Your task to perform on an android device: Open Yahoo.com Image 0: 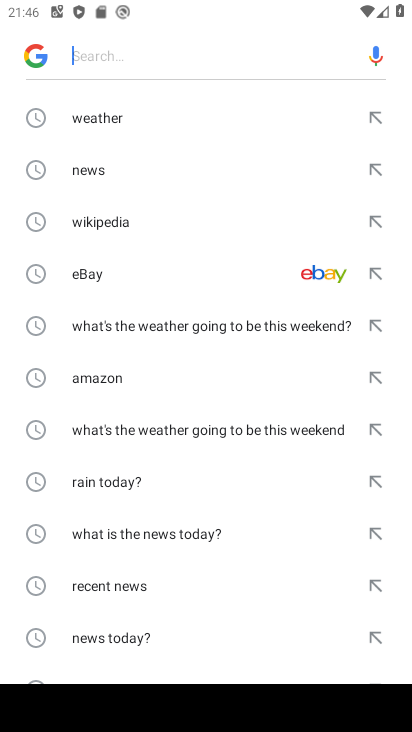
Step 0: press home button
Your task to perform on an android device: Open Yahoo.com Image 1: 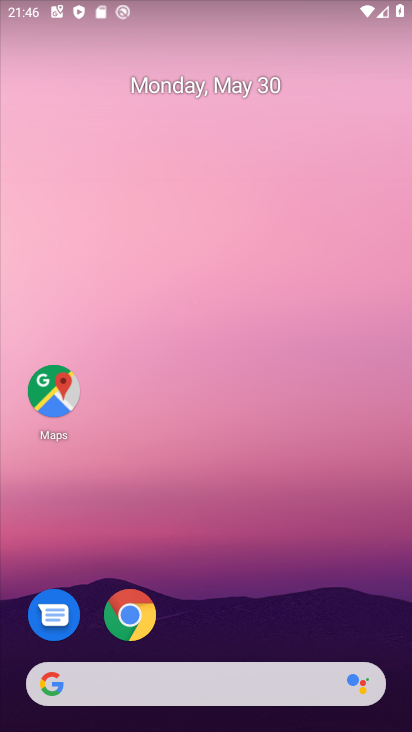
Step 1: click (138, 600)
Your task to perform on an android device: Open Yahoo.com Image 2: 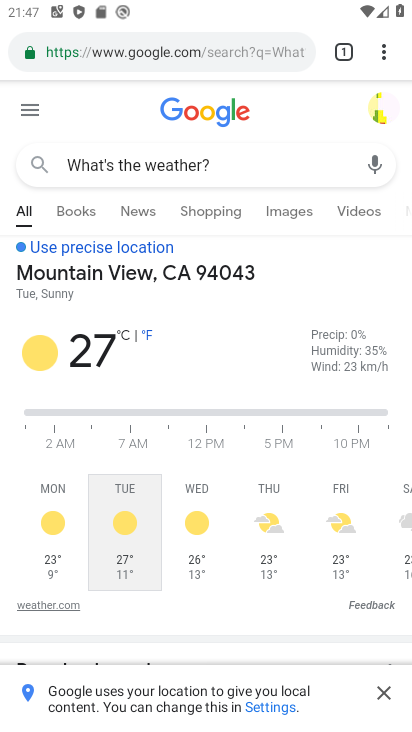
Step 2: click (202, 56)
Your task to perform on an android device: Open Yahoo.com Image 3: 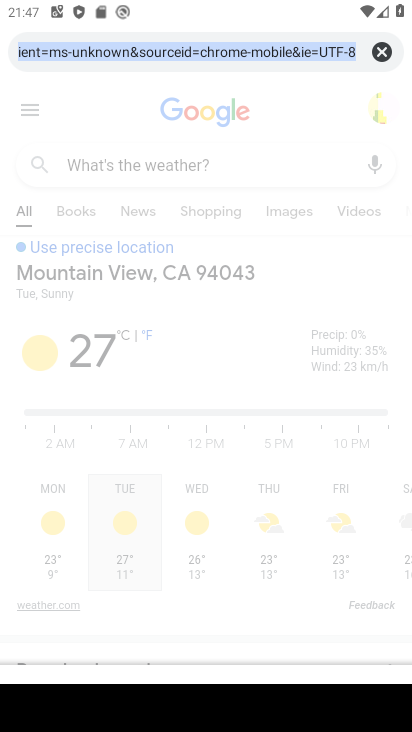
Step 3: type "yahoo.com"
Your task to perform on an android device: Open Yahoo.com Image 4: 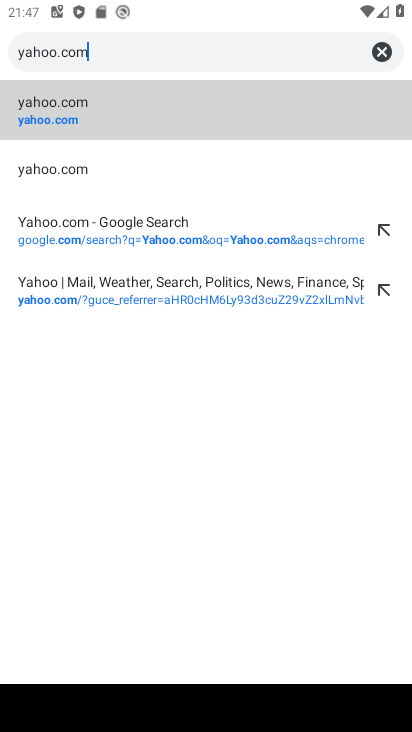
Step 4: click (69, 119)
Your task to perform on an android device: Open Yahoo.com Image 5: 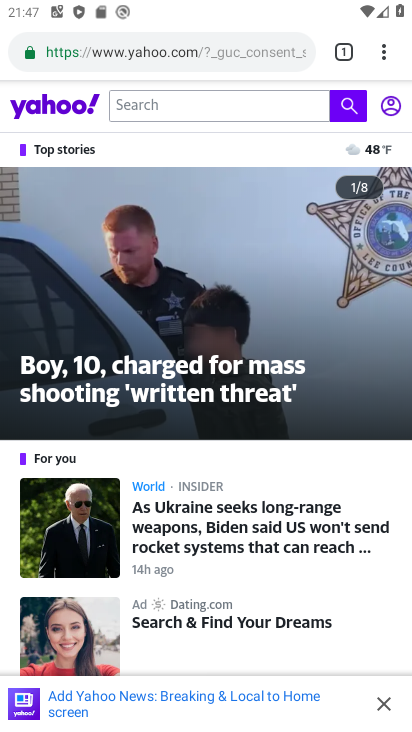
Step 5: task complete